Your task to perform on an android device: Go to sound settings Image 0: 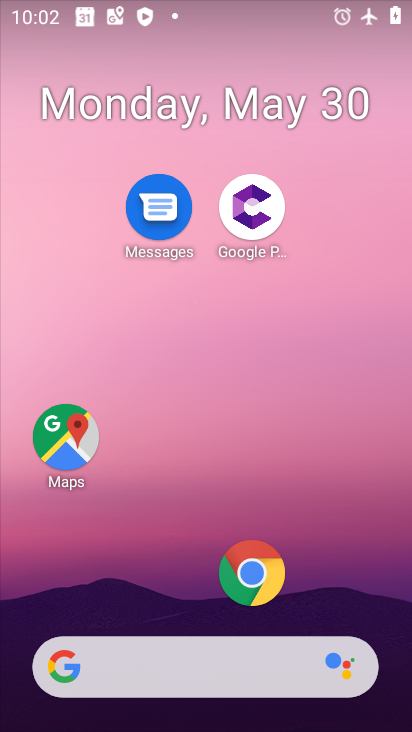
Step 0: drag from (168, 670) to (237, 264)
Your task to perform on an android device: Go to sound settings Image 1: 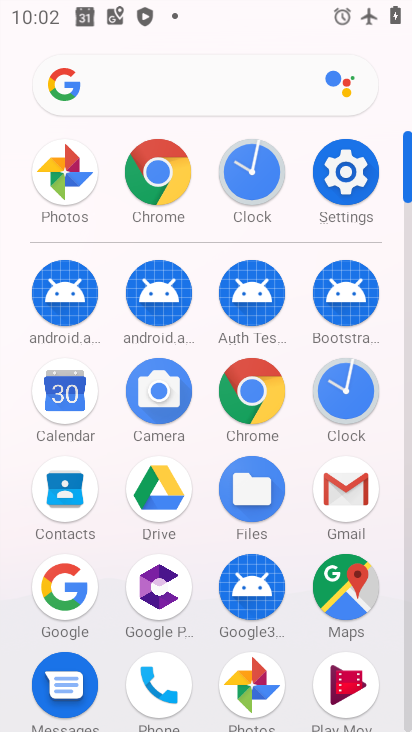
Step 1: click (337, 190)
Your task to perform on an android device: Go to sound settings Image 2: 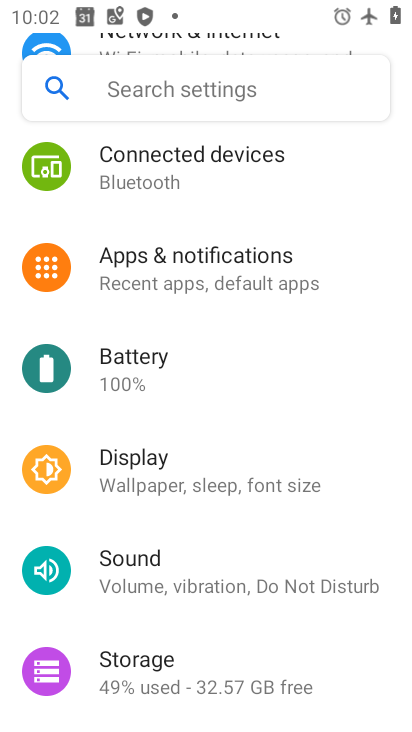
Step 2: click (171, 586)
Your task to perform on an android device: Go to sound settings Image 3: 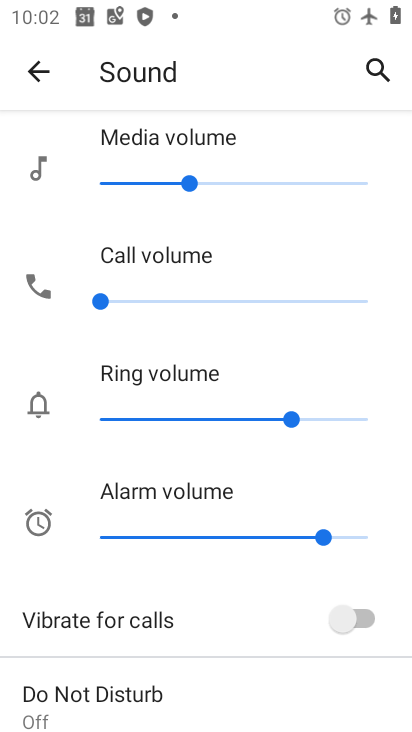
Step 3: task complete